Your task to perform on an android device: turn off notifications settings in the gmail app Image 0: 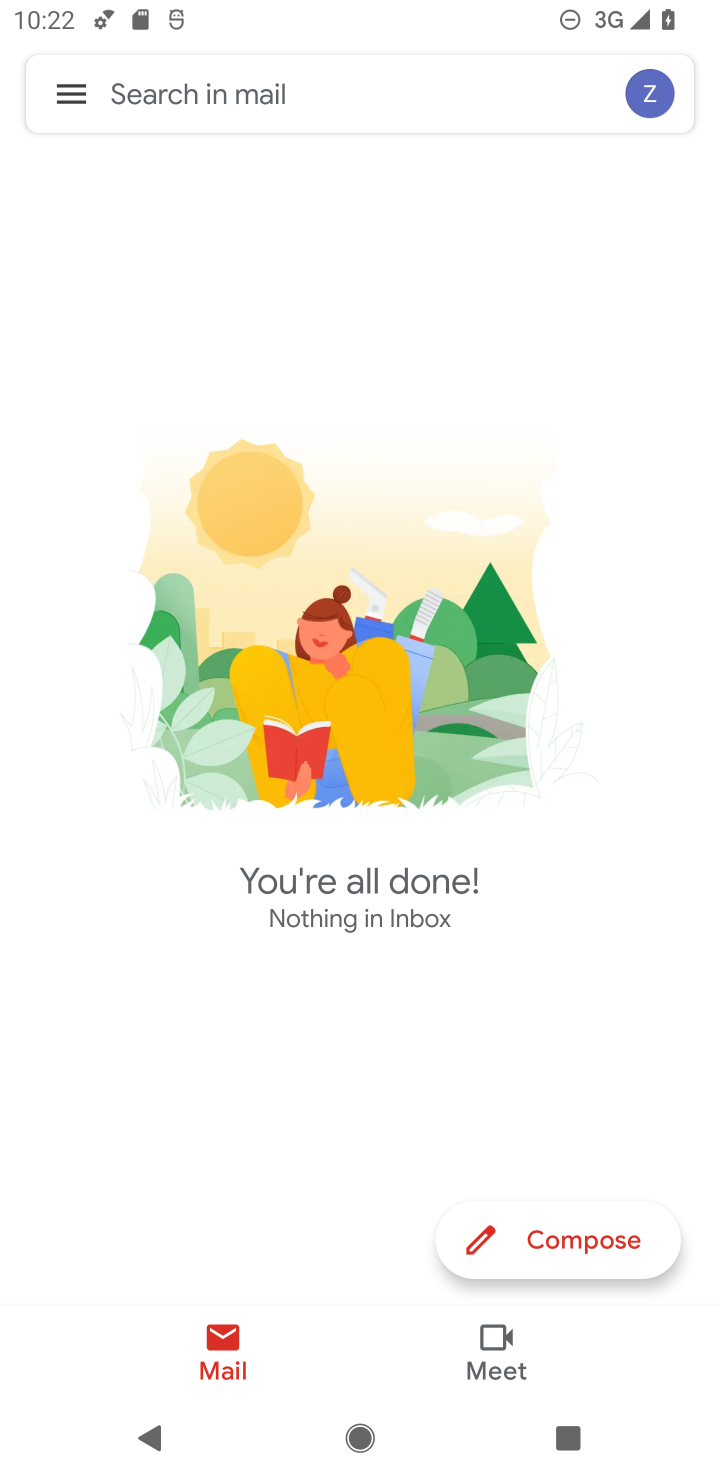
Step 0: click (72, 95)
Your task to perform on an android device: turn off notifications settings in the gmail app Image 1: 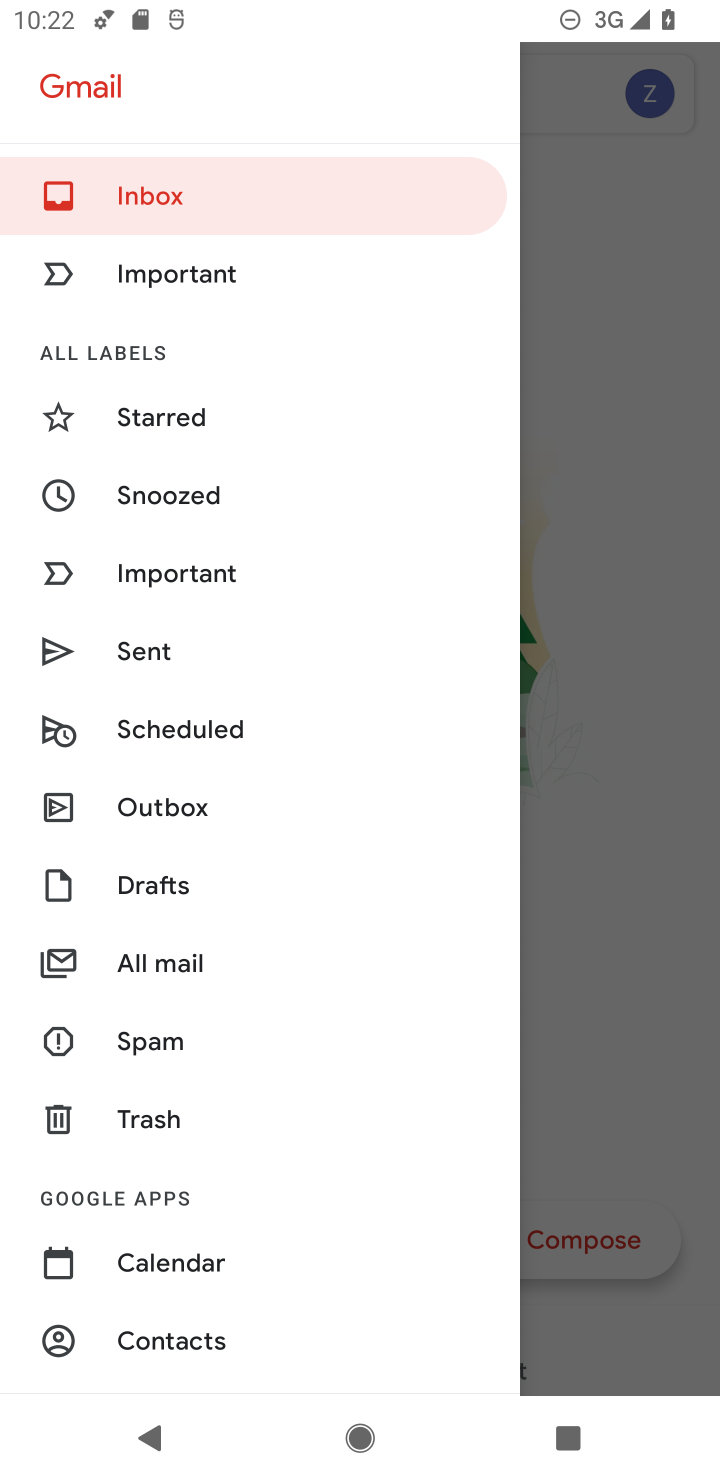
Step 1: drag from (123, 1342) to (63, 591)
Your task to perform on an android device: turn off notifications settings in the gmail app Image 2: 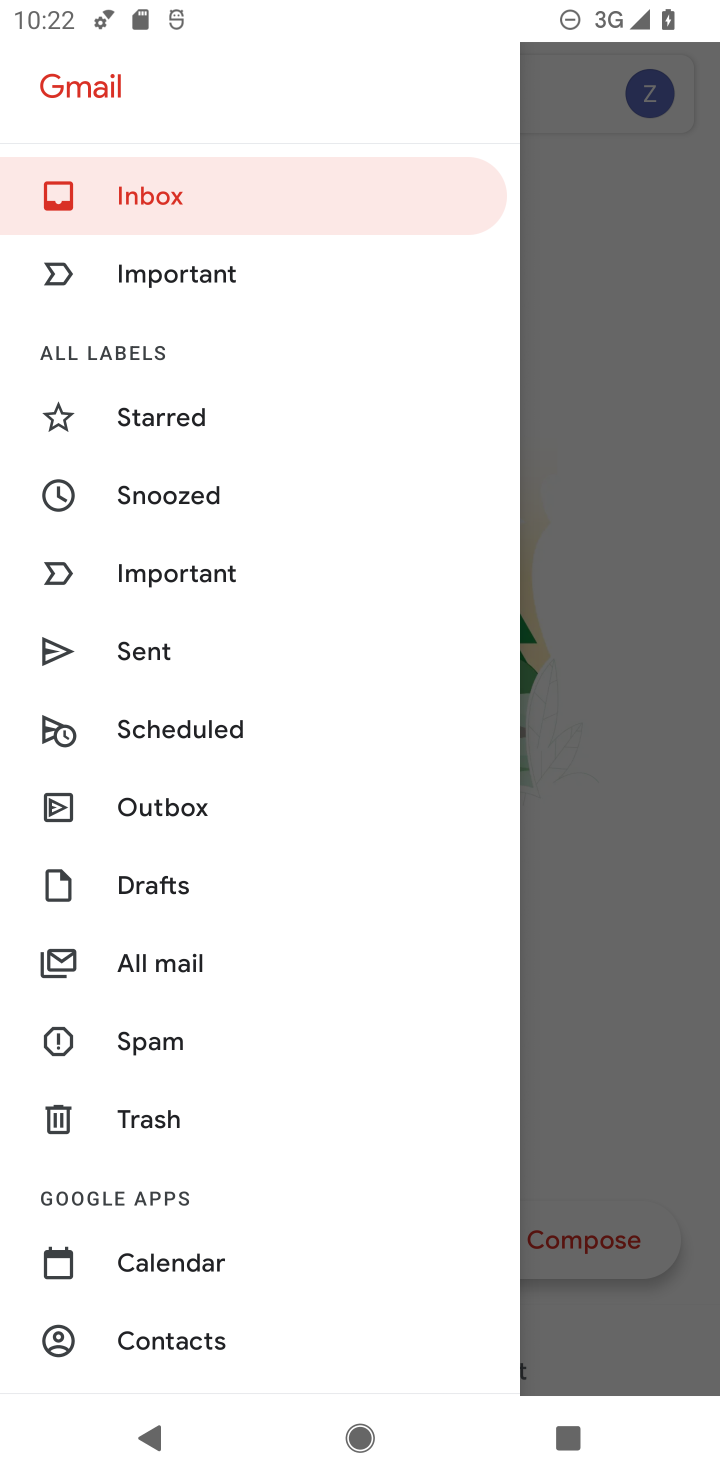
Step 2: drag from (226, 1241) to (194, 396)
Your task to perform on an android device: turn off notifications settings in the gmail app Image 3: 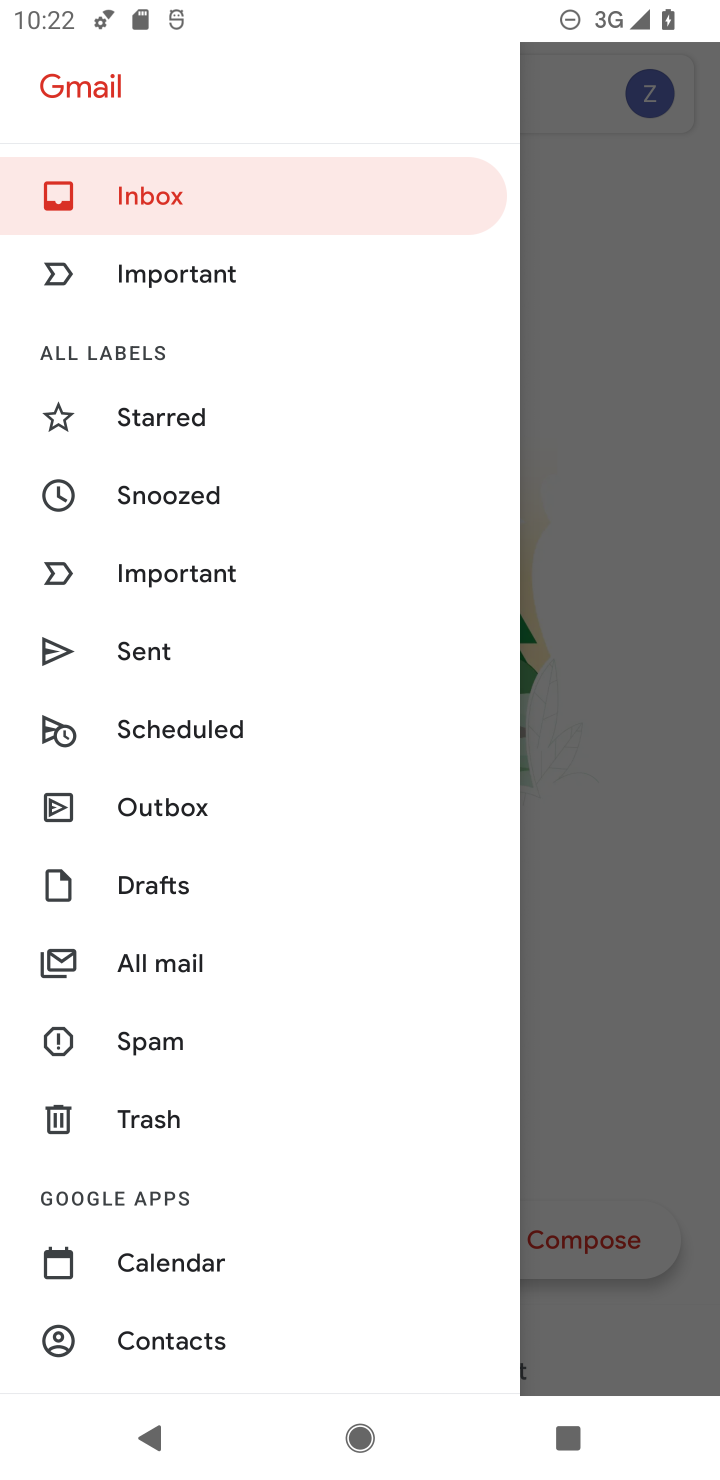
Step 3: drag from (234, 1297) to (269, 414)
Your task to perform on an android device: turn off notifications settings in the gmail app Image 4: 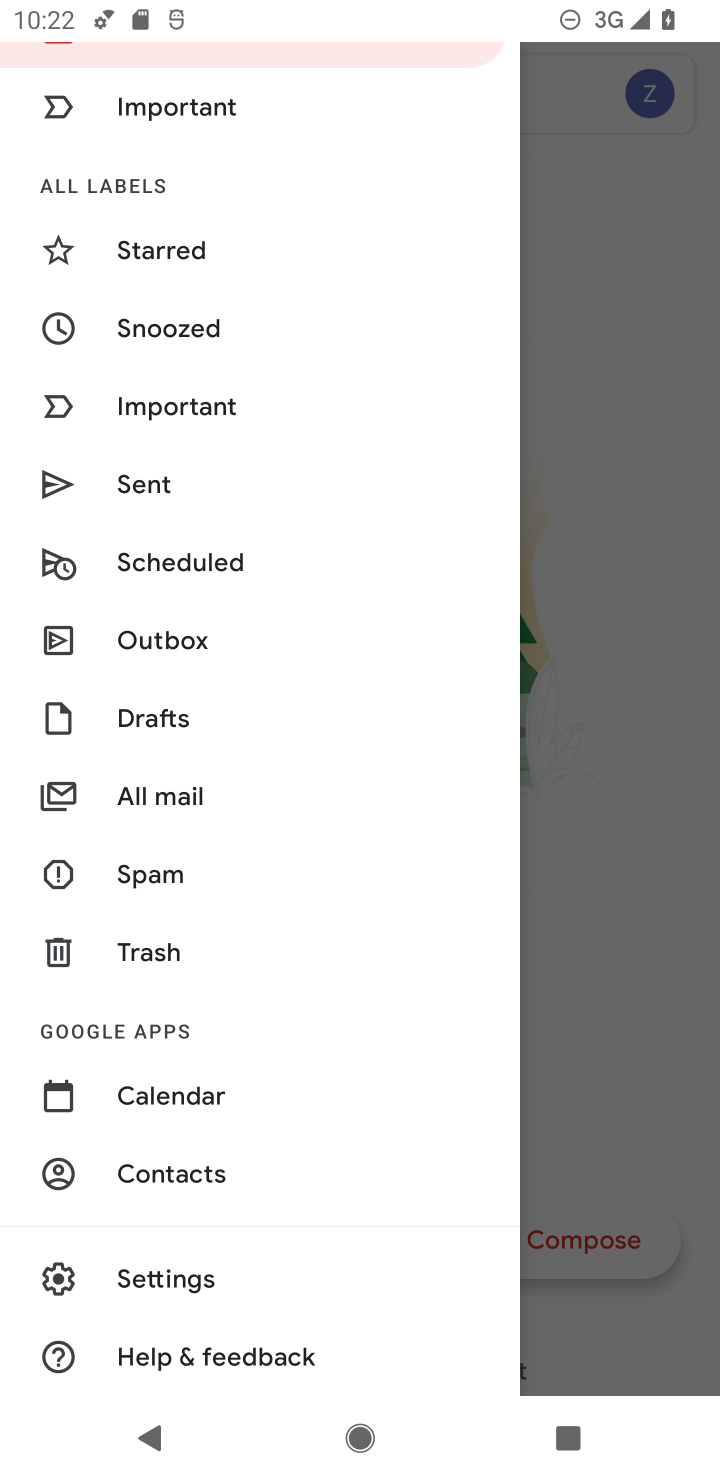
Step 4: click (165, 1284)
Your task to perform on an android device: turn off notifications settings in the gmail app Image 5: 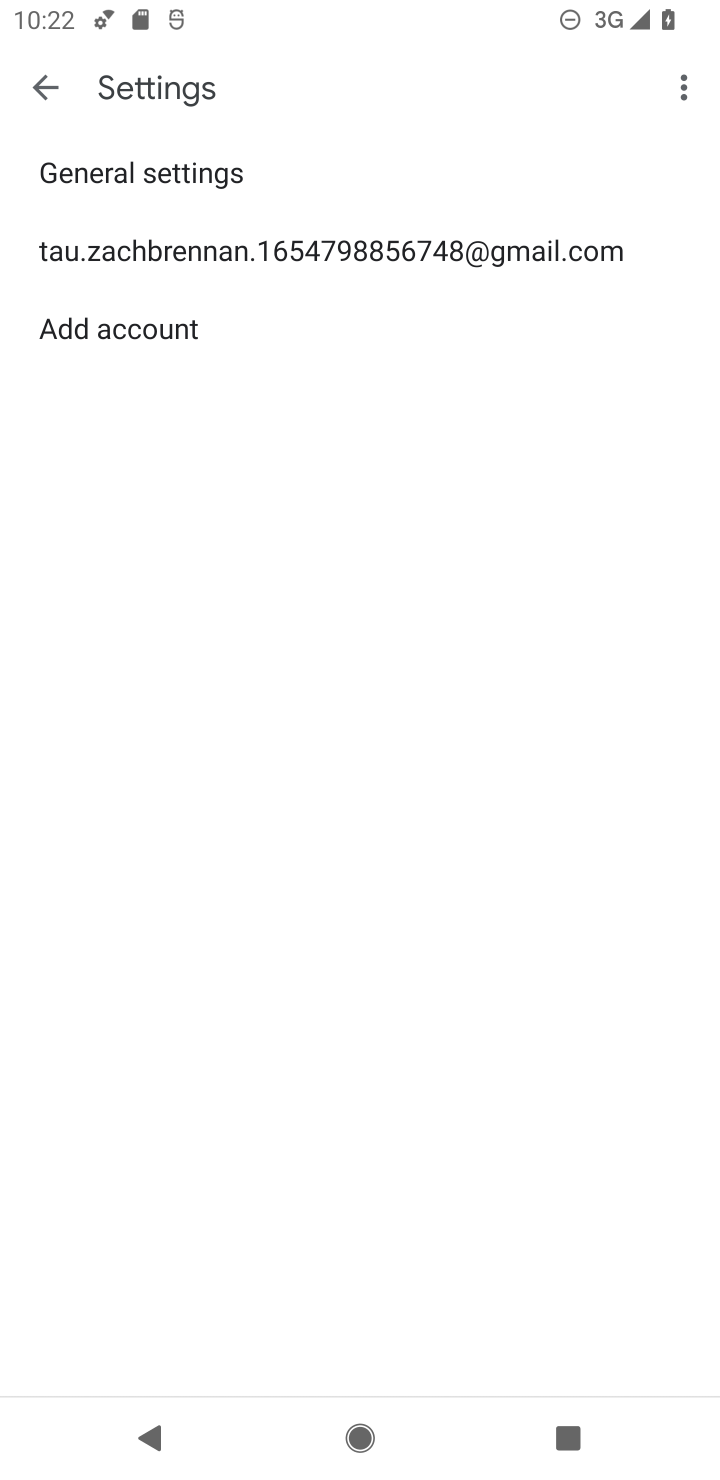
Step 5: click (223, 243)
Your task to perform on an android device: turn off notifications settings in the gmail app Image 6: 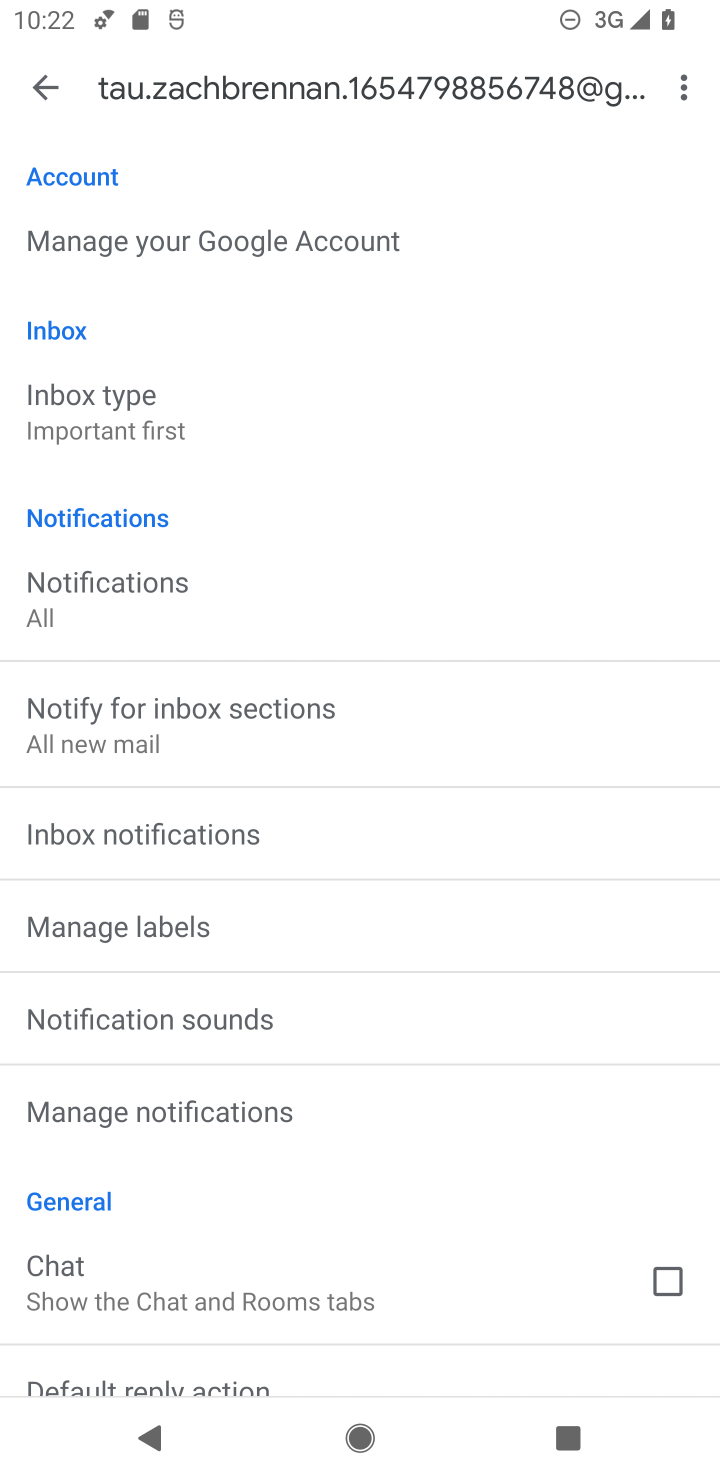
Step 6: click (205, 1100)
Your task to perform on an android device: turn off notifications settings in the gmail app Image 7: 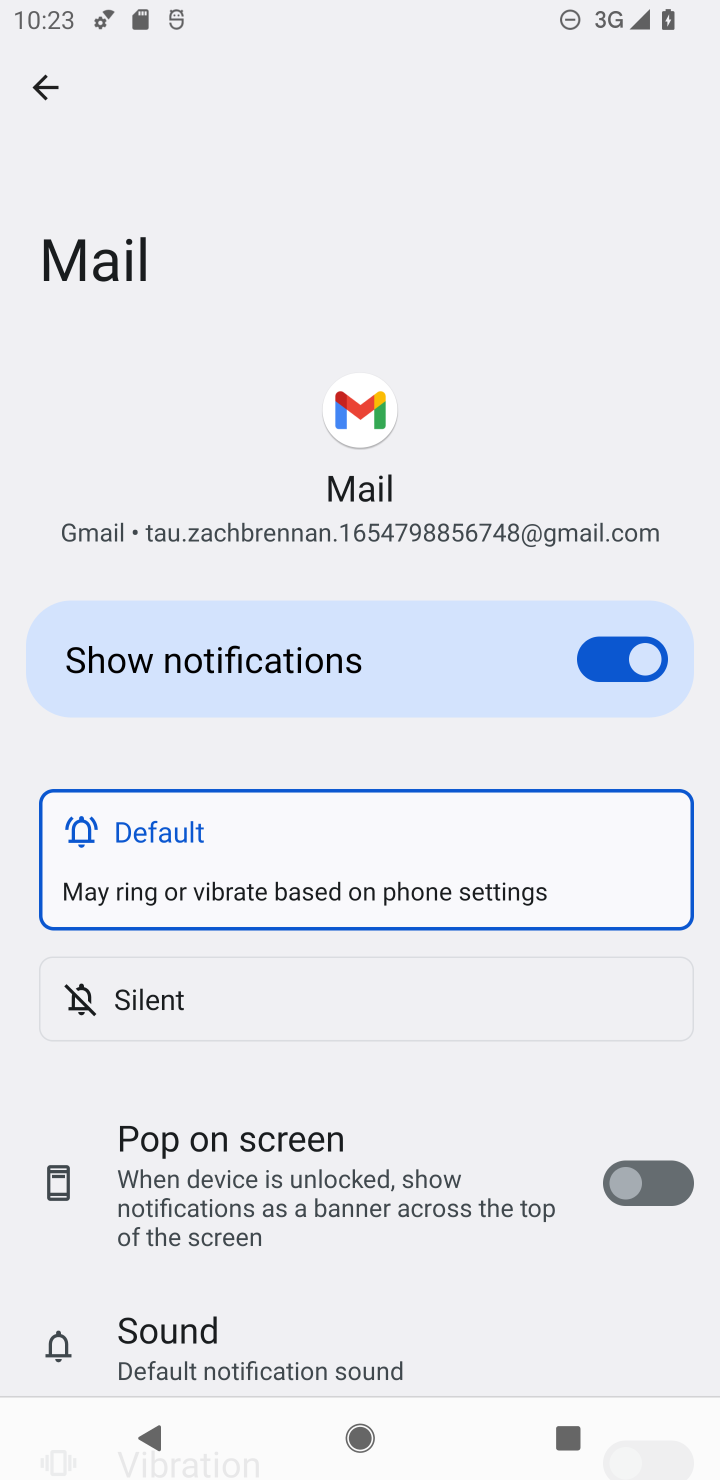
Step 7: click (588, 662)
Your task to perform on an android device: turn off notifications settings in the gmail app Image 8: 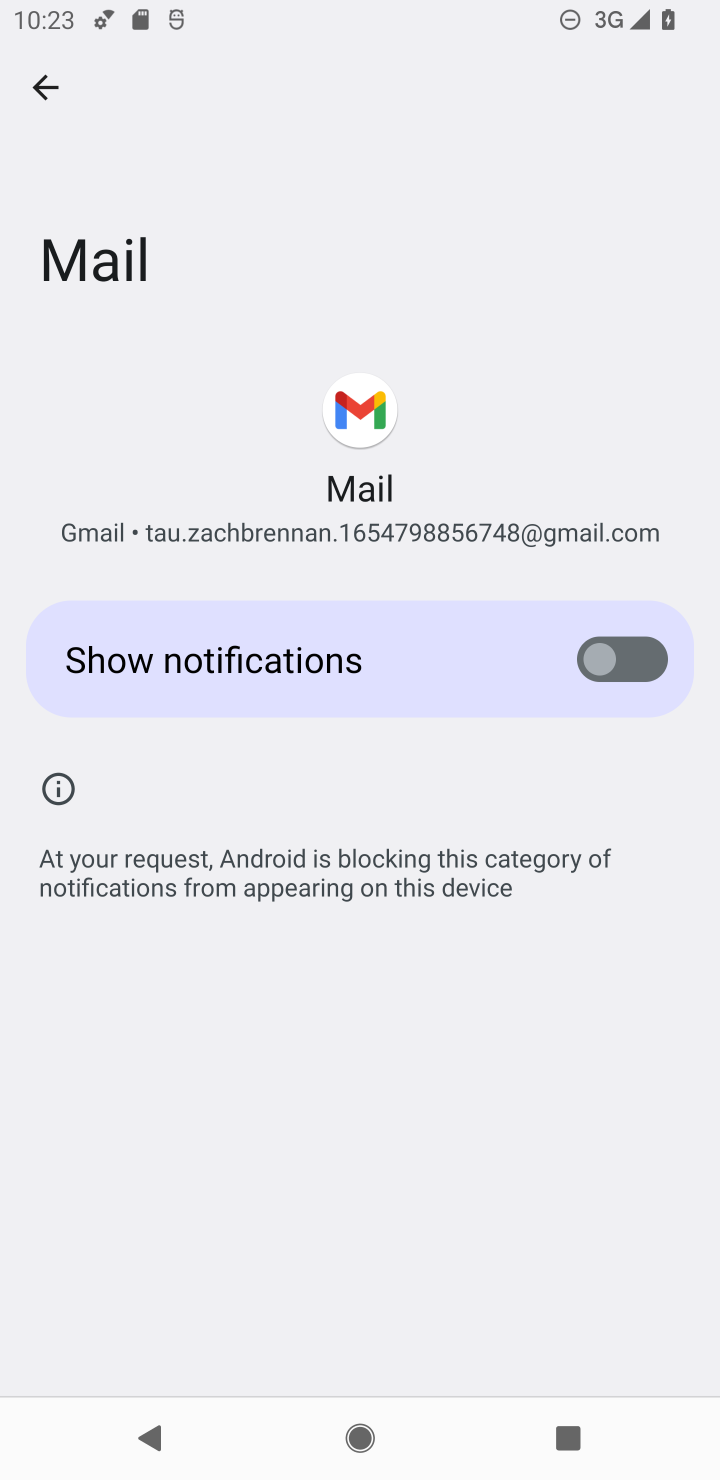
Step 8: task complete